Your task to perform on an android device: open app "DoorDash - Dasher" (install if not already installed) Image 0: 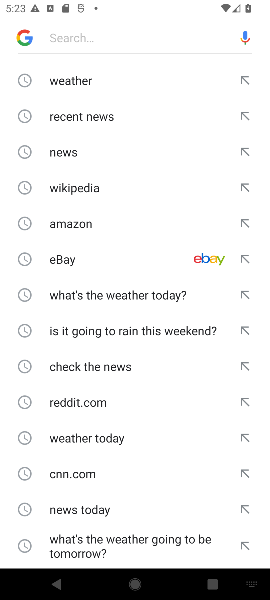
Step 0: click (128, 28)
Your task to perform on an android device: open app "DoorDash - Dasher" (install if not already installed) Image 1: 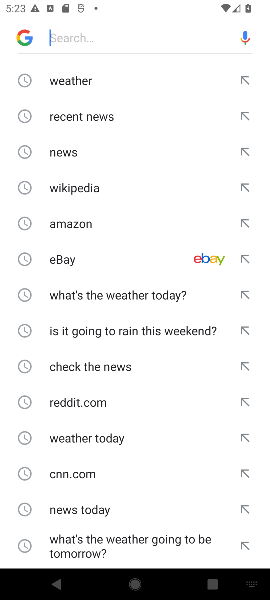
Step 1: type "DoorDash "
Your task to perform on an android device: open app "DoorDash - Dasher" (install if not already installed) Image 2: 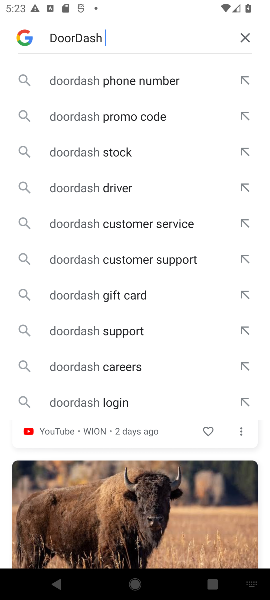
Step 2: click (239, 29)
Your task to perform on an android device: open app "DoorDash - Dasher" (install if not already installed) Image 3: 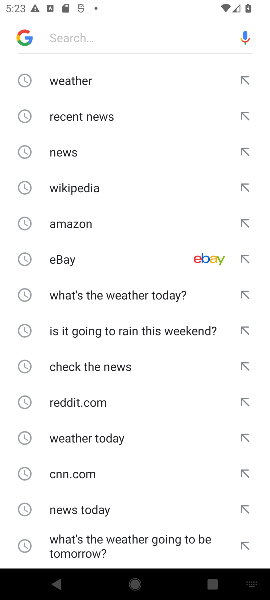
Step 3: click (115, 42)
Your task to perform on an android device: open app "DoorDash - Dasher" (install if not already installed) Image 4: 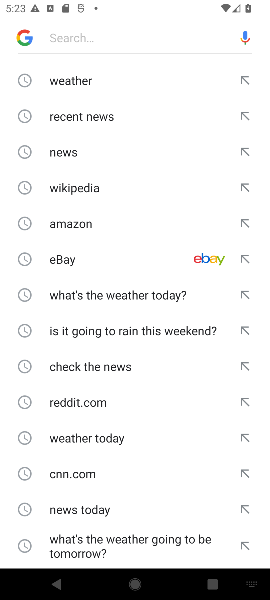
Step 4: type "DoorDash - Dasher "
Your task to perform on an android device: open app "DoorDash - Dasher" (install if not already installed) Image 5: 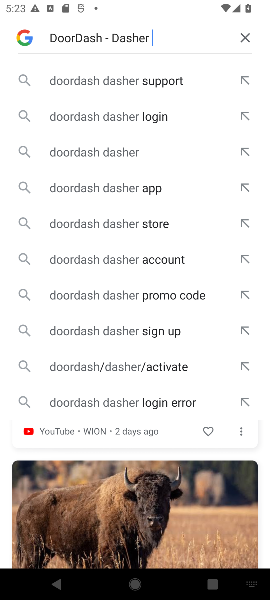
Step 5: click (132, 78)
Your task to perform on an android device: open app "DoorDash - Dasher" (install if not already installed) Image 6: 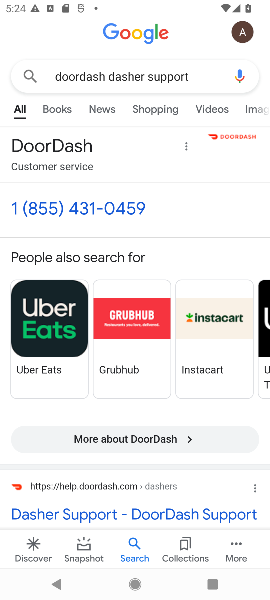
Step 6: press home button
Your task to perform on an android device: open app "DoorDash - Dasher" (install if not already installed) Image 7: 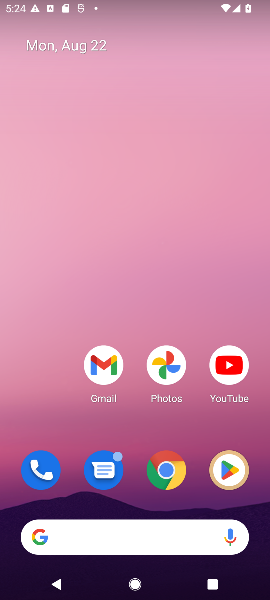
Step 7: click (227, 463)
Your task to perform on an android device: open app "DoorDash - Dasher" (install if not already installed) Image 8: 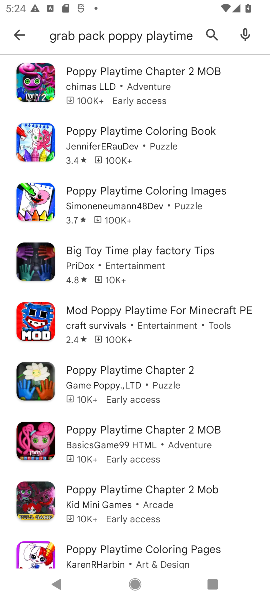
Step 8: click (22, 29)
Your task to perform on an android device: open app "DoorDash - Dasher" (install if not already installed) Image 9: 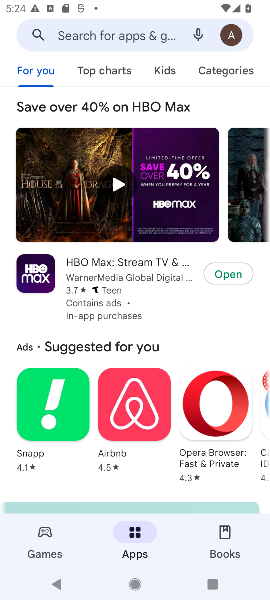
Step 9: click (132, 35)
Your task to perform on an android device: open app "DoorDash - Dasher" (install if not already installed) Image 10: 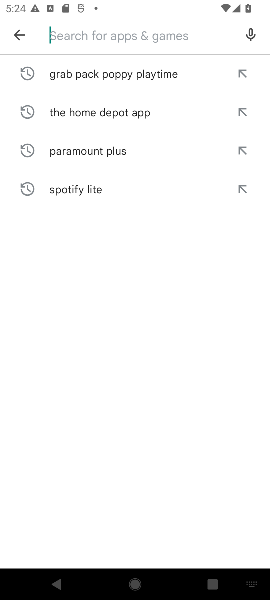
Step 10: type "DoorDash - Dasher "
Your task to perform on an android device: open app "DoorDash - Dasher" (install if not already installed) Image 11: 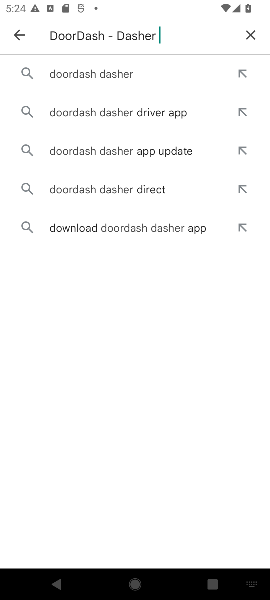
Step 11: click (109, 75)
Your task to perform on an android device: open app "DoorDash - Dasher" (install if not already installed) Image 12: 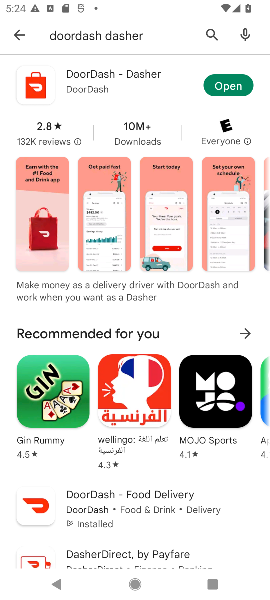
Step 12: click (240, 87)
Your task to perform on an android device: open app "DoorDash - Dasher" (install if not already installed) Image 13: 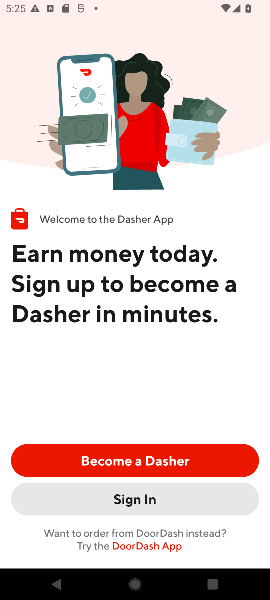
Step 13: task complete